Your task to perform on an android device: empty trash in google photos Image 0: 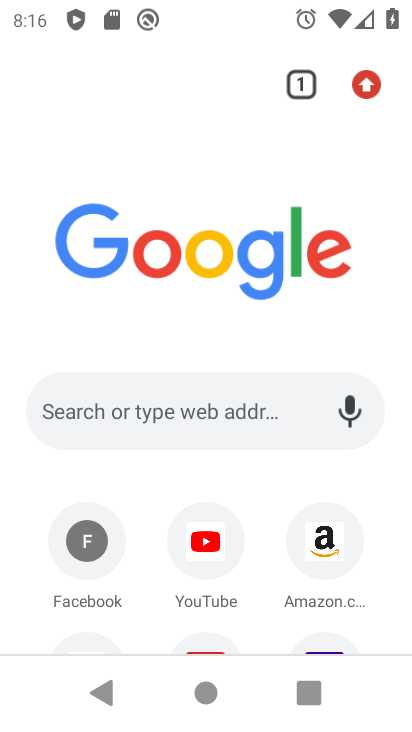
Step 0: press home button
Your task to perform on an android device: empty trash in google photos Image 1: 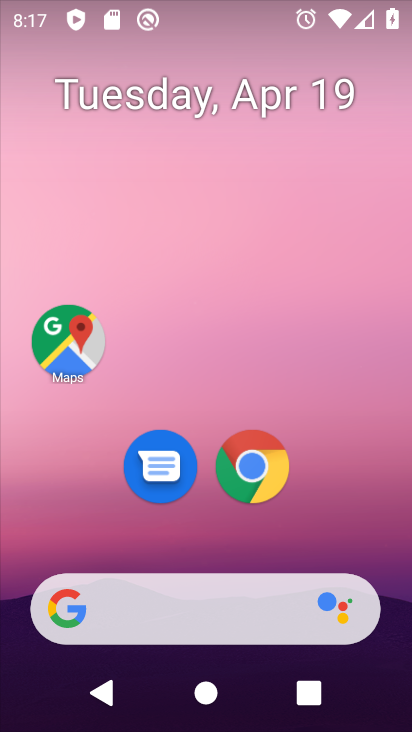
Step 1: drag from (331, 548) to (327, 27)
Your task to perform on an android device: empty trash in google photos Image 2: 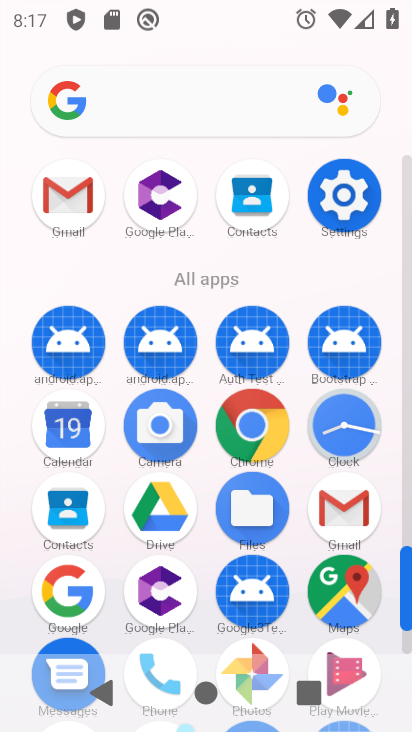
Step 2: drag from (381, 490) to (385, 210)
Your task to perform on an android device: empty trash in google photos Image 3: 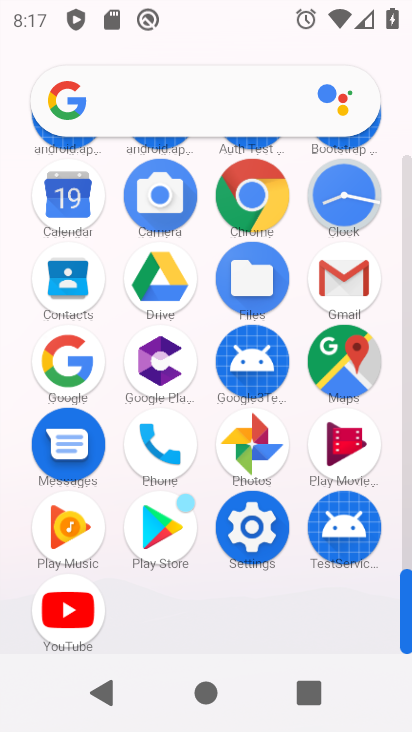
Step 3: click (251, 437)
Your task to perform on an android device: empty trash in google photos Image 4: 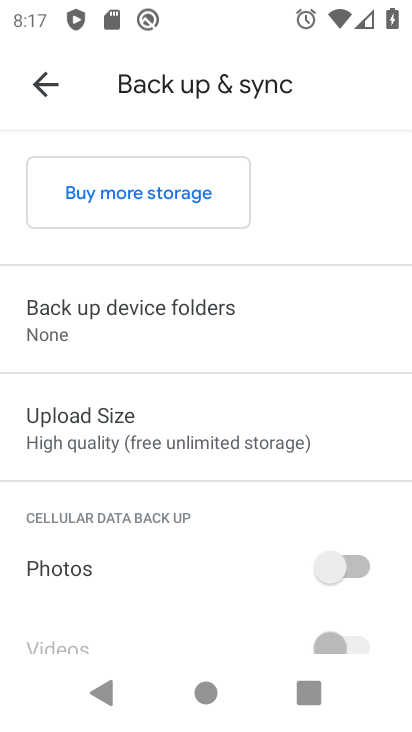
Step 4: drag from (159, 501) to (197, 287)
Your task to perform on an android device: empty trash in google photos Image 5: 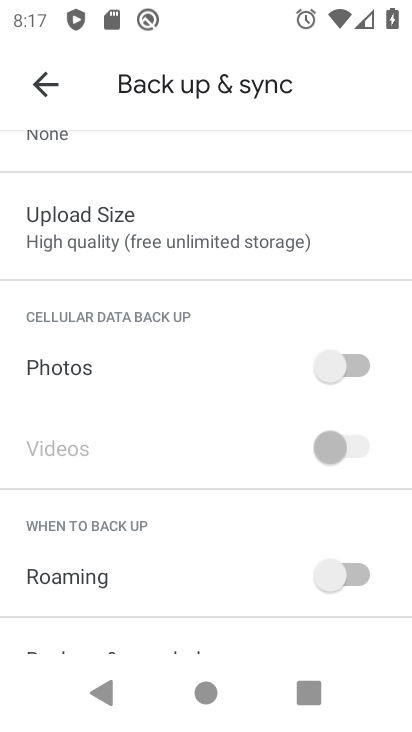
Step 5: drag from (81, 128) to (69, 451)
Your task to perform on an android device: empty trash in google photos Image 6: 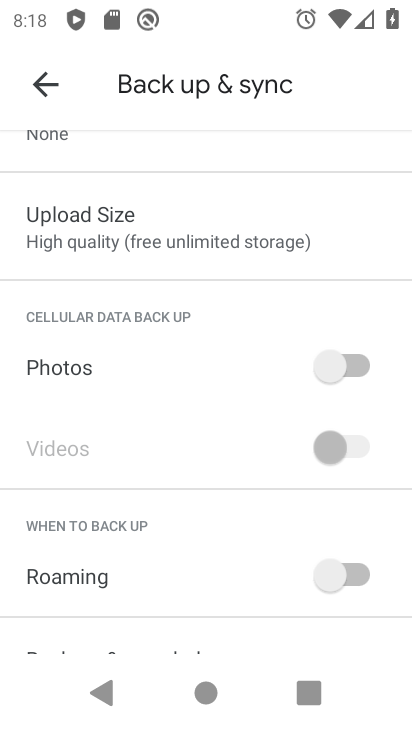
Step 6: click (28, 90)
Your task to perform on an android device: empty trash in google photos Image 7: 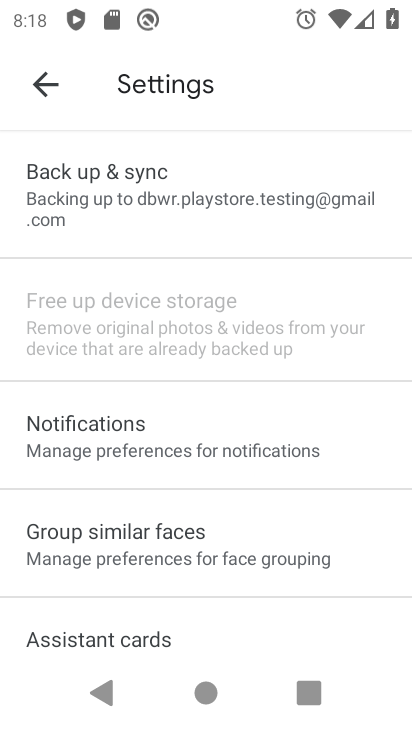
Step 7: click (27, 90)
Your task to perform on an android device: empty trash in google photos Image 8: 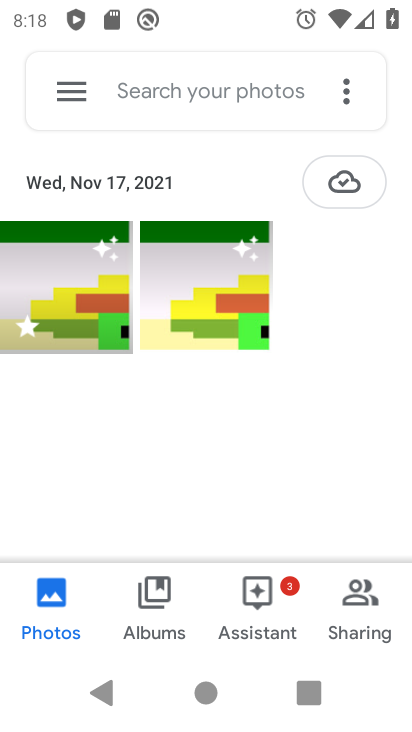
Step 8: click (71, 103)
Your task to perform on an android device: empty trash in google photos Image 9: 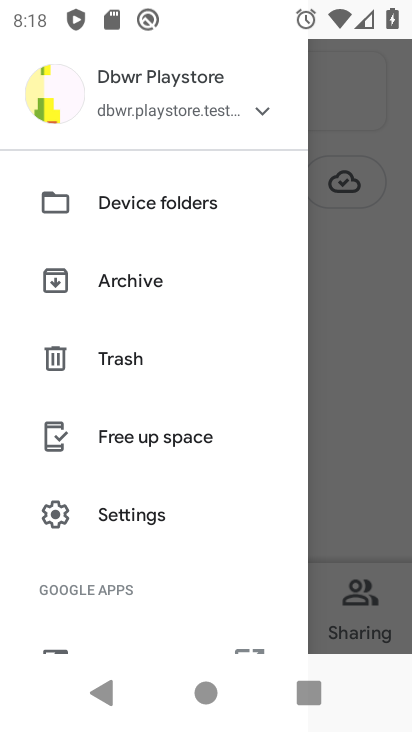
Step 9: click (128, 377)
Your task to perform on an android device: empty trash in google photos Image 10: 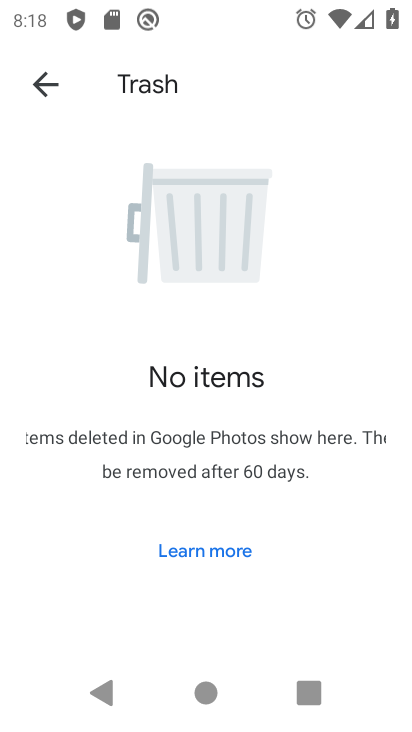
Step 10: task complete